Your task to perform on an android device: Open settings Image 0: 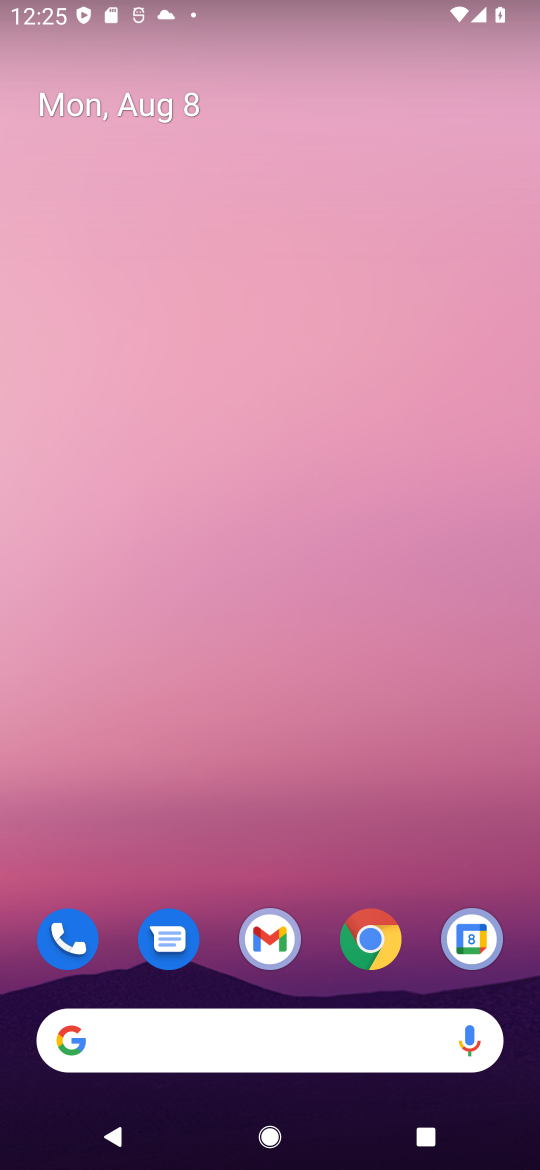
Step 0: drag from (228, 1024) to (316, 165)
Your task to perform on an android device: Open settings Image 1: 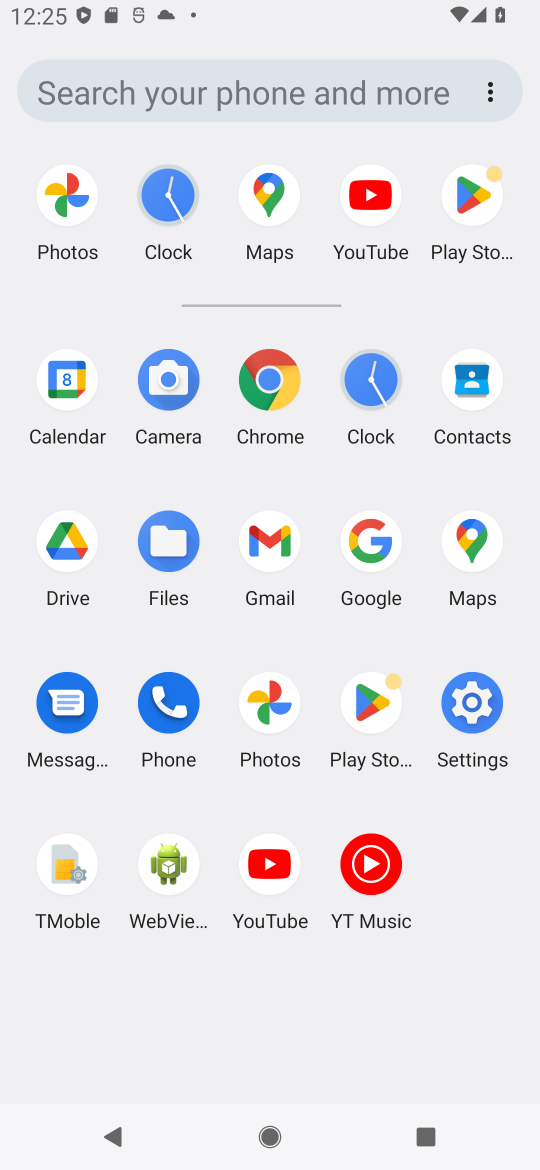
Step 1: click (472, 699)
Your task to perform on an android device: Open settings Image 2: 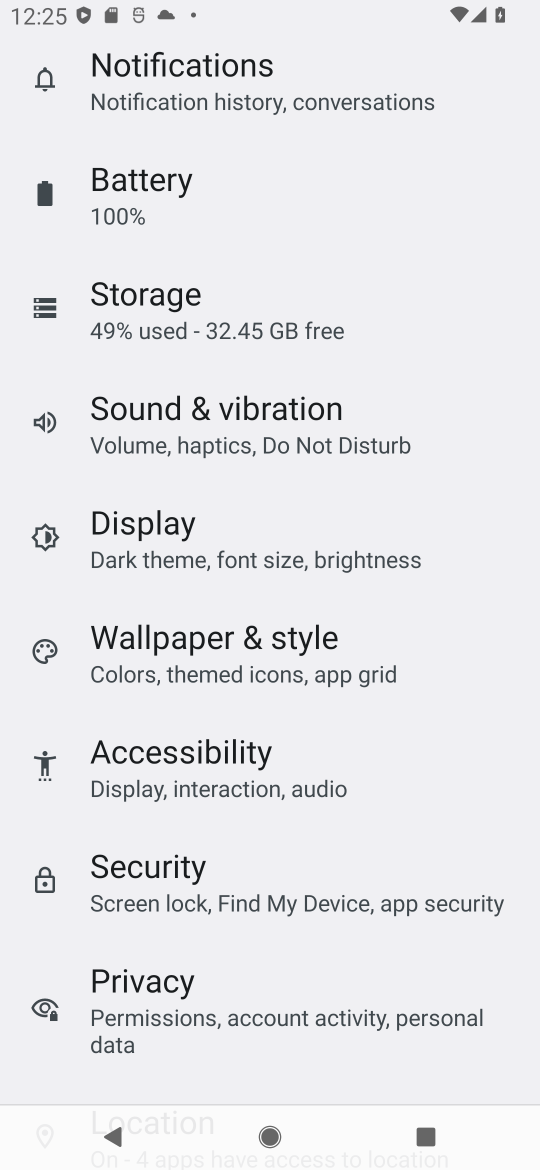
Step 2: task complete